Your task to perform on an android device: turn vacation reply on in the gmail app Image 0: 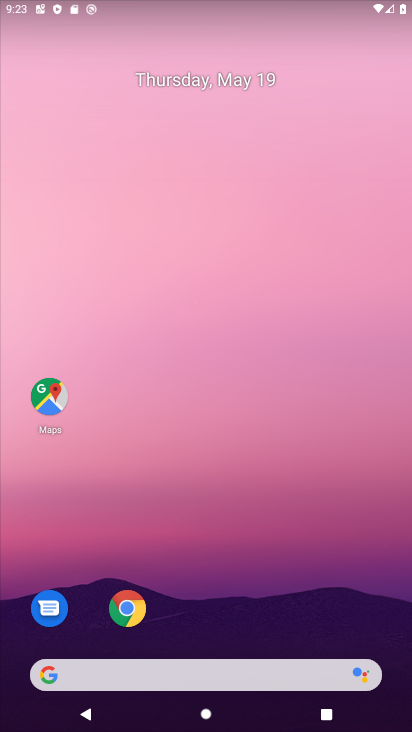
Step 0: drag from (204, 629) to (247, 276)
Your task to perform on an android device: turn vacation reply on in the gmail app Image 1: 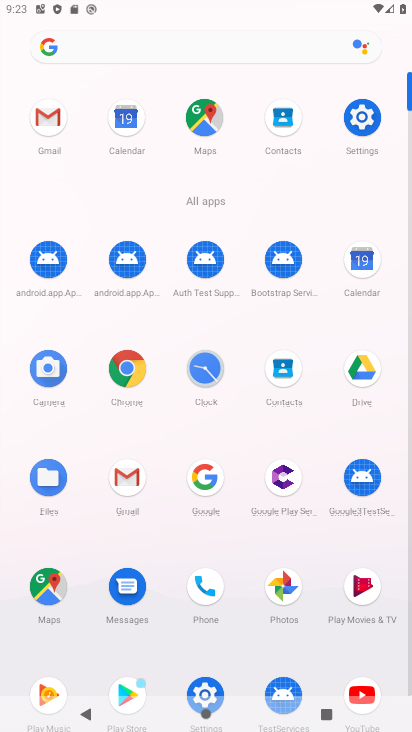
Step 1: click (134, 482)
Your task to perform on an android device: turn vacation reply on in the gmail app Image 2: 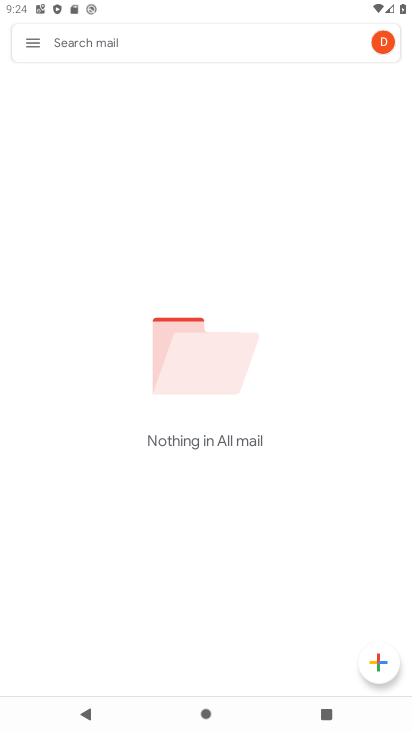
Step 2: click (32, 43)
Your task to perform on an android device: turn vacation reply on in the gmail app Image 3: 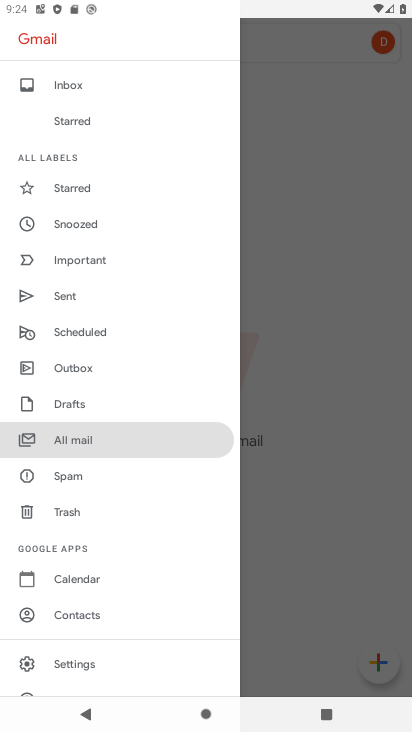
Step 3: click (77, 665)
Your task to perform on an android device: turn vacation reply on in the gmail app Image 4: 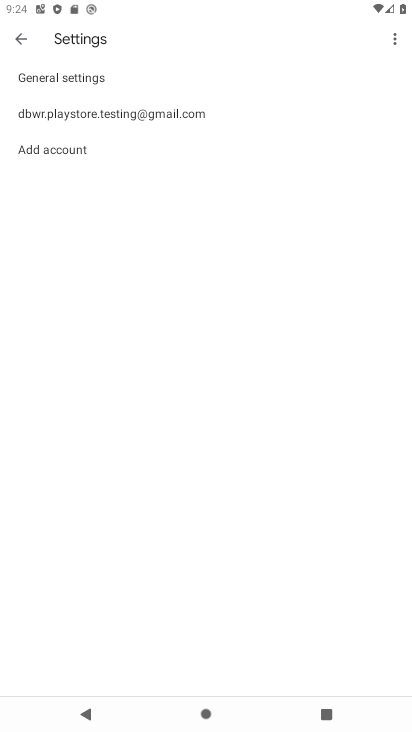
Step 4: click (165, 107)
Your task to perform on an android device: turn vacation reply on in the gmail app Image 5: 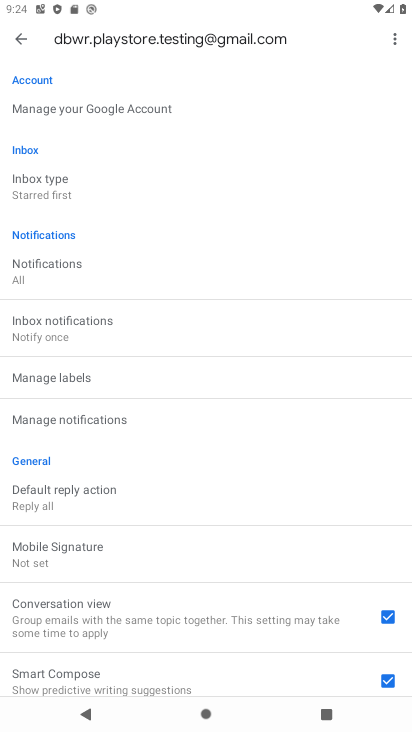
Step 5: drag from (174, 520) to (183, 201)
Your task to perform on an android device: turn vacation reply on in the gmail app Image 6: 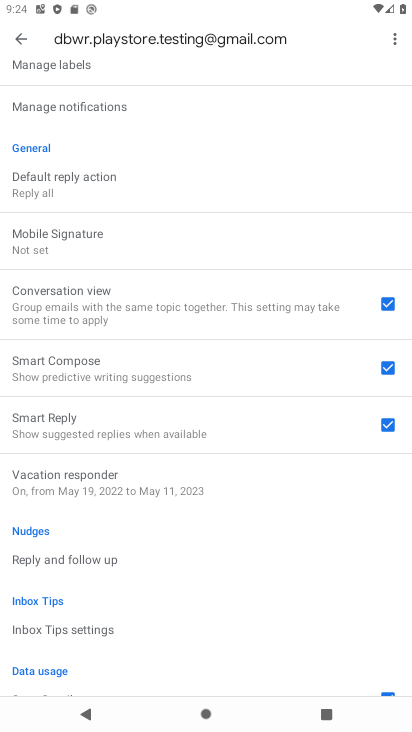
Step 6: click (107, 481)
Your task to perform on an android device: turn vacation reply on in the gmail app Image 7: 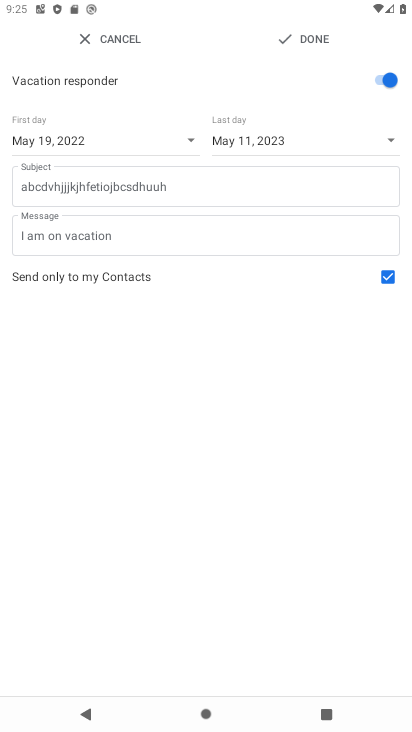
Step 7: task complete